Your task to perform on an android device: Go to accessibility settings Image 0: 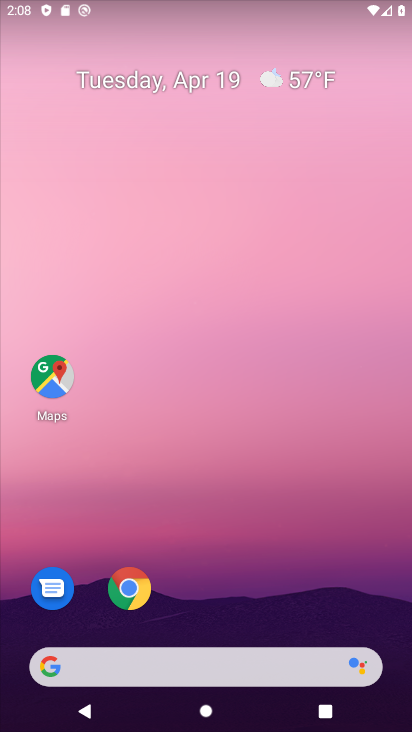
Step 0: drag from (358, 506) to (361, 84)
Your task to perform on an android device: Go to accessibility settings Image 1: 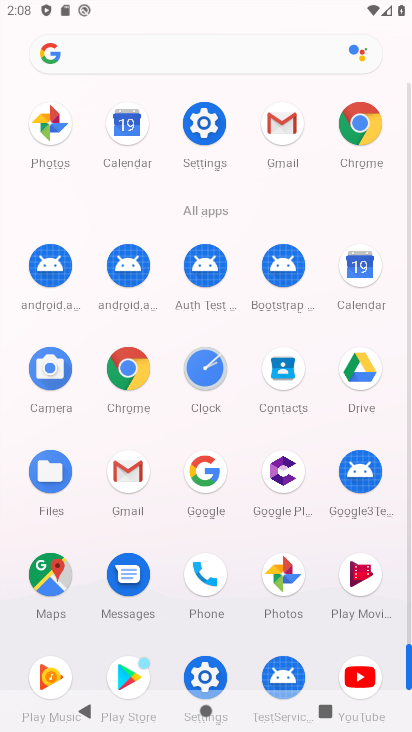
Step 1: click (206, 128)
Your task to perform on an android device: Go to accessibility settings Image 2: 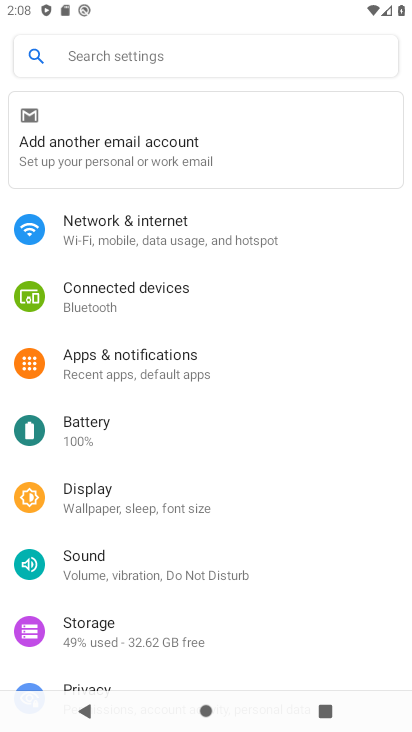
Step 2: drag from (263, 519) to (278, 200)
Your task to perform on an android device: Go to accessibility settings Image 3: 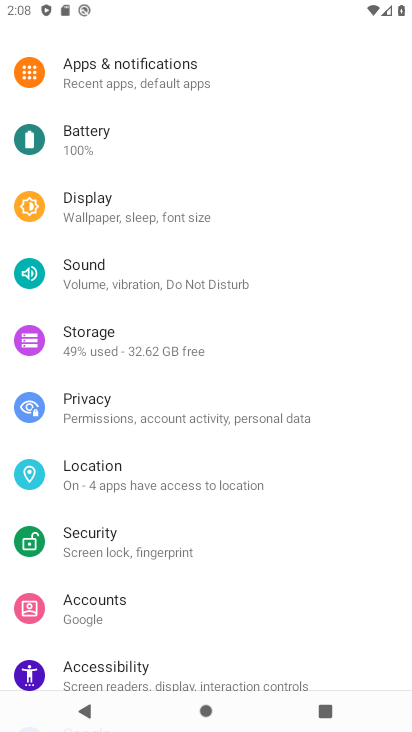
Step 3: click (176, 661)
Your task to perform on an android device: Go to accessibility settings Image 4: 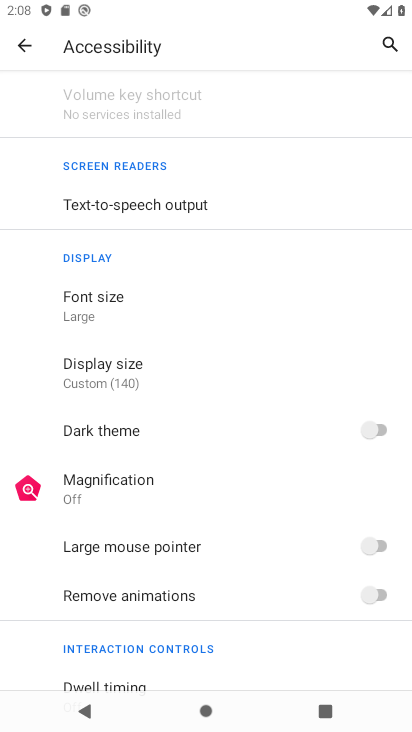
Step 4: task complete